Your task to perform on an android device: delete location history Image 0: 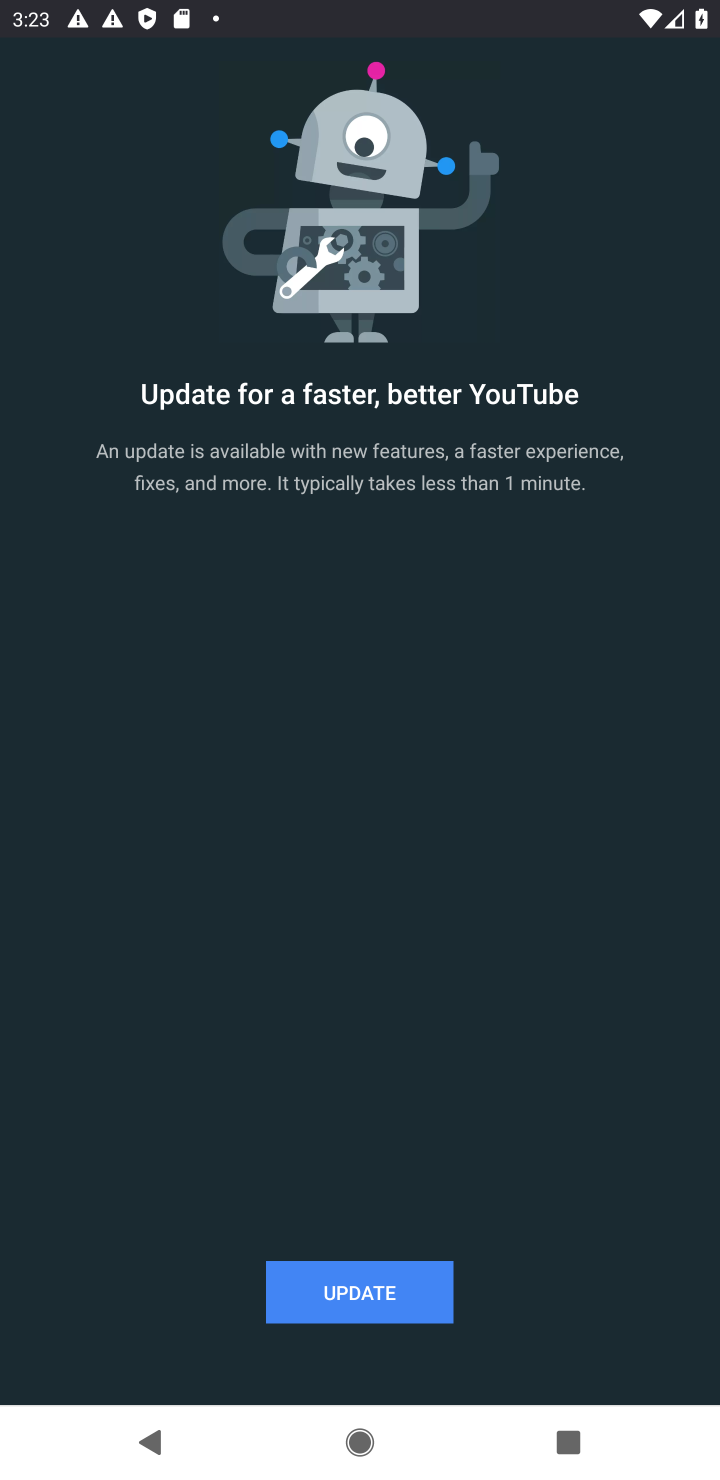
Step 0: press back button
Your task to perform on an android device: delete location history Image 1: 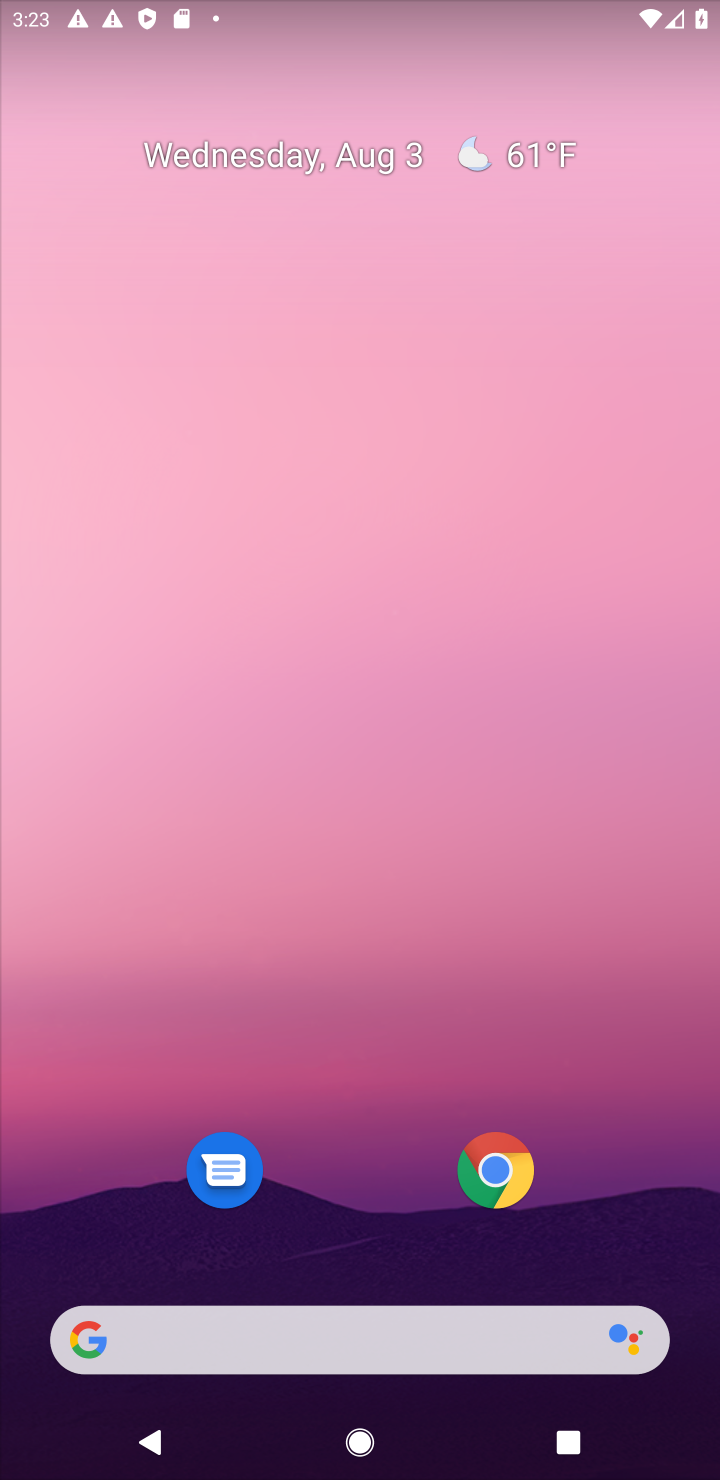
Step 1: drag from (684, 1210) to (472, 230)
Your task to perform on an android device: delete location history Image 2: 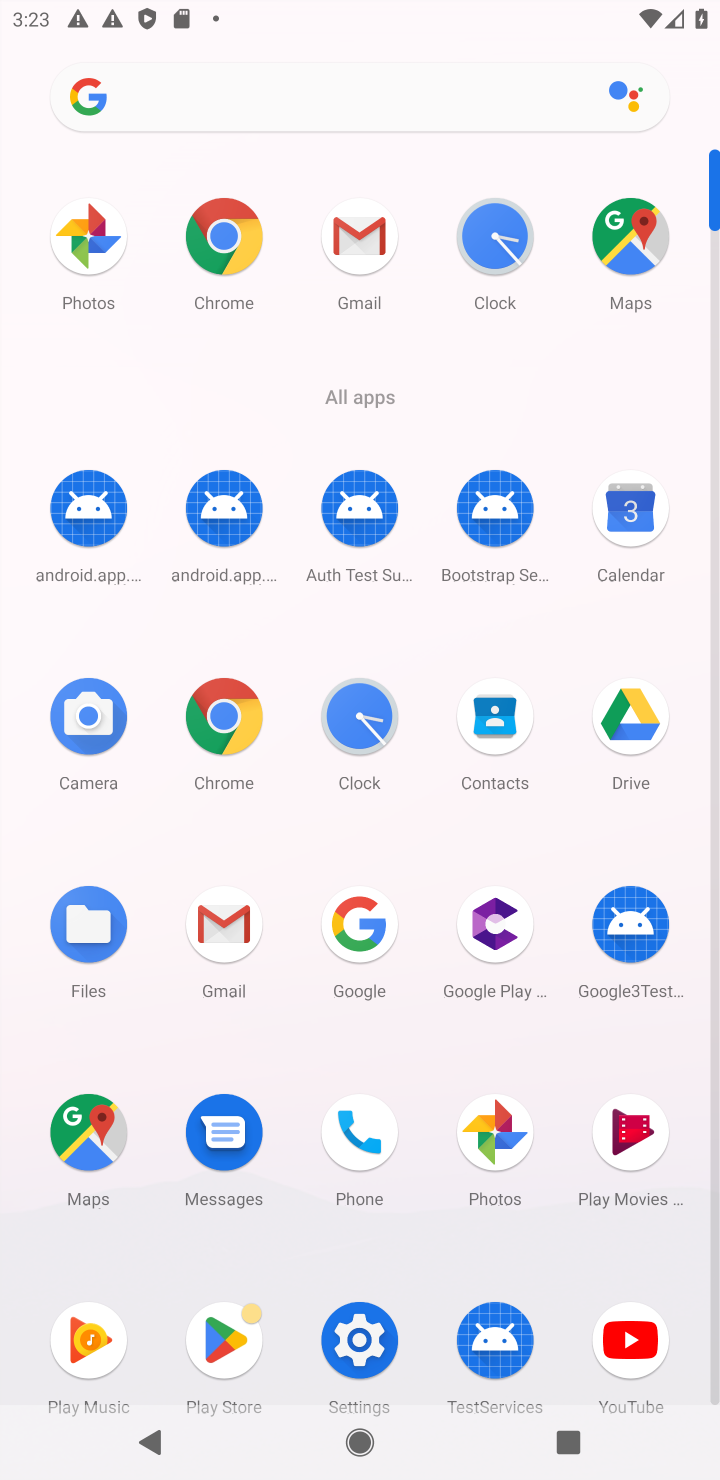
Step 2: click (618, 260)
Your task to perform on an android device: delete location history Image 3: 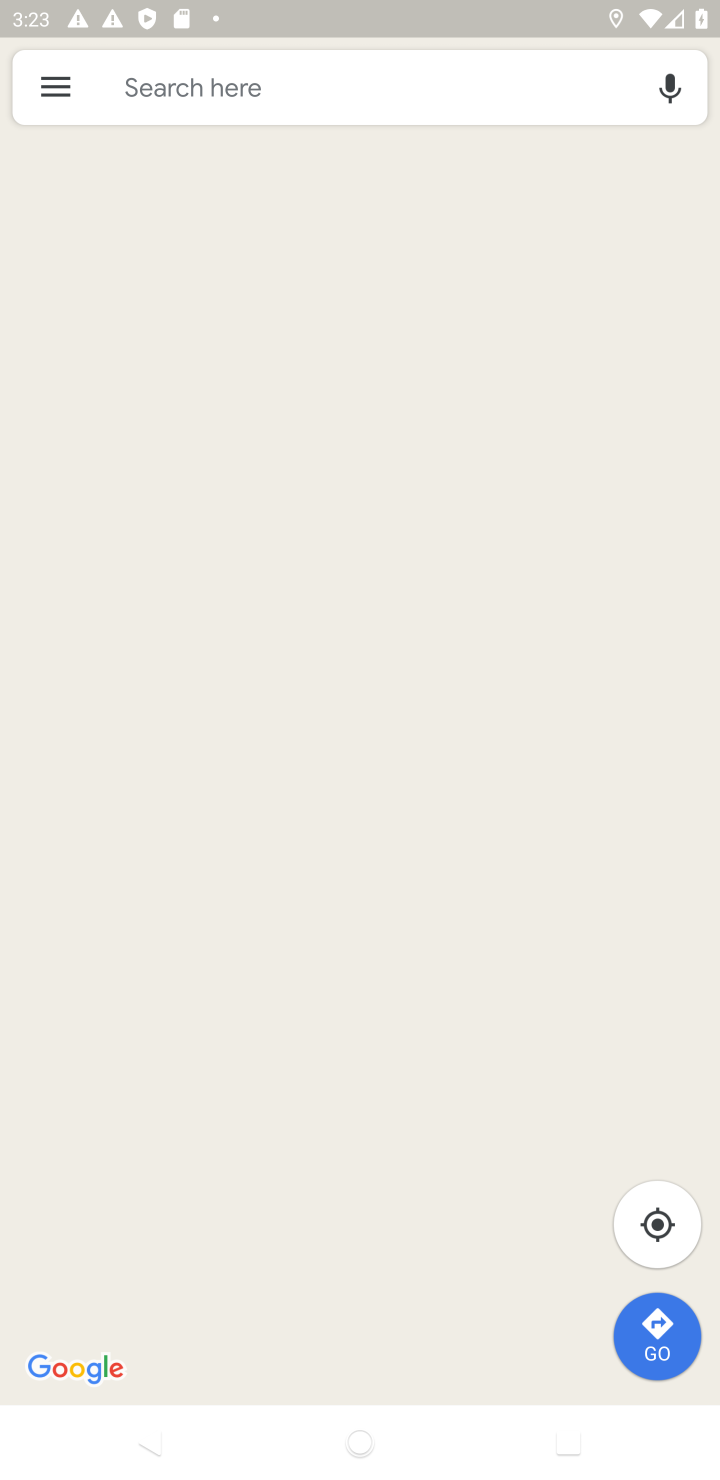
Step 3: click (64, 104)
Your task to perform on an android device: delete location history Image 4: 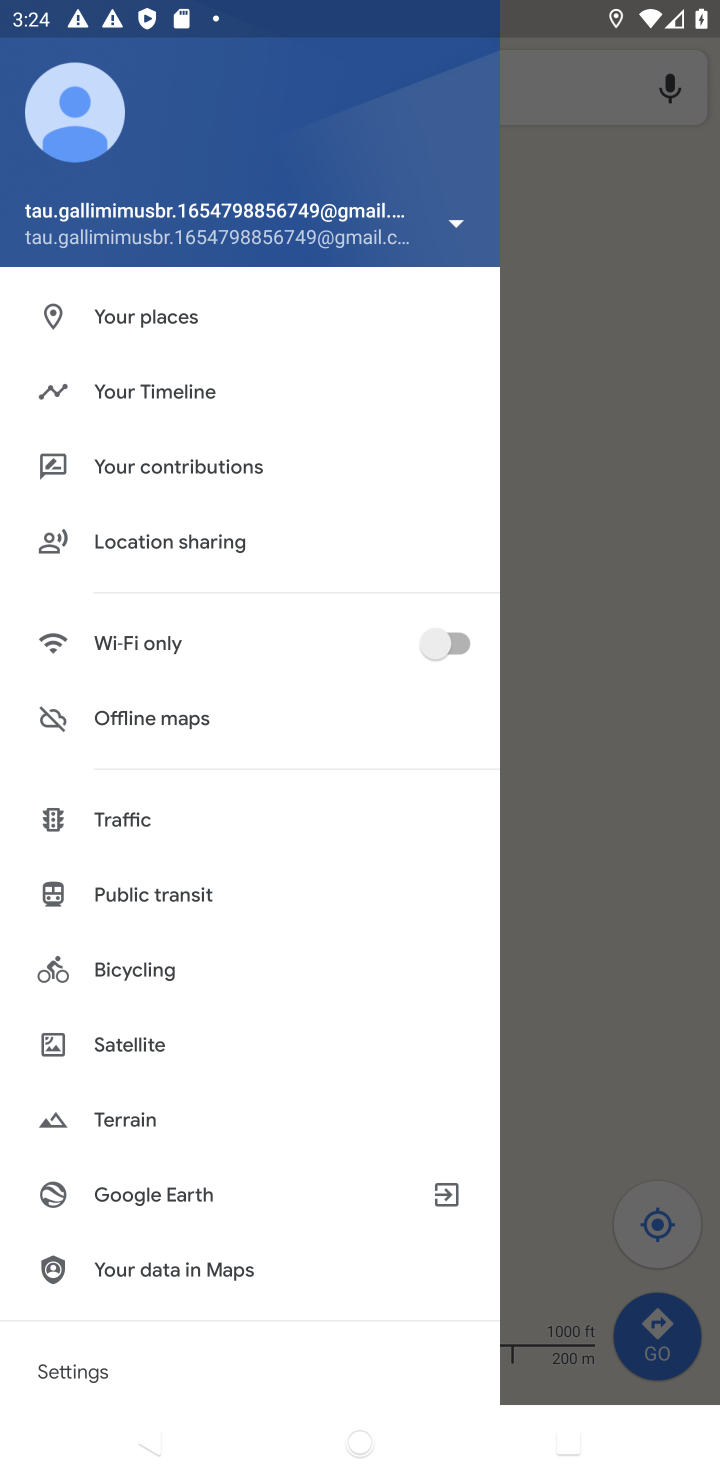
Step 4: click (202, 397)
Your task to perform on an android device: delete location history Image 5: 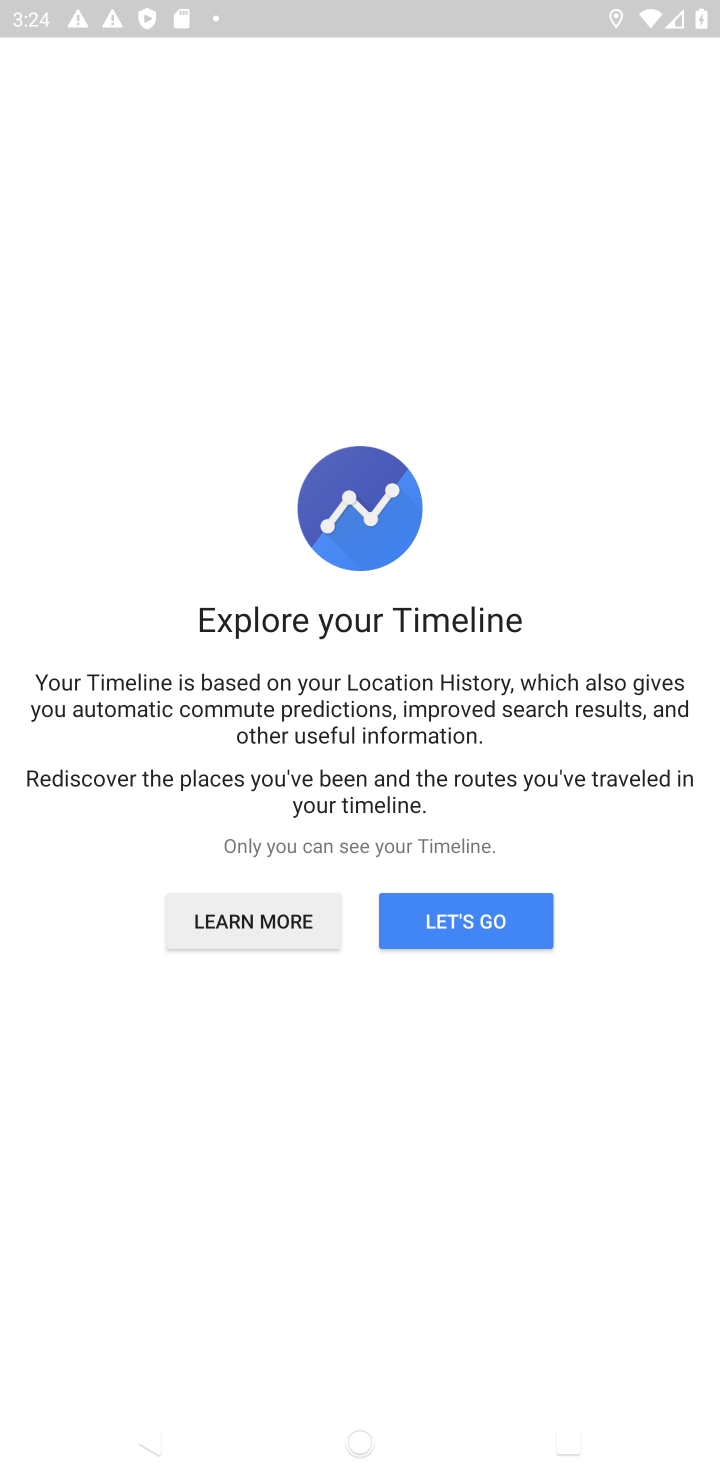
Step 5: click (458, 941)
Your task to perform on an android device: delete location history Image 6: 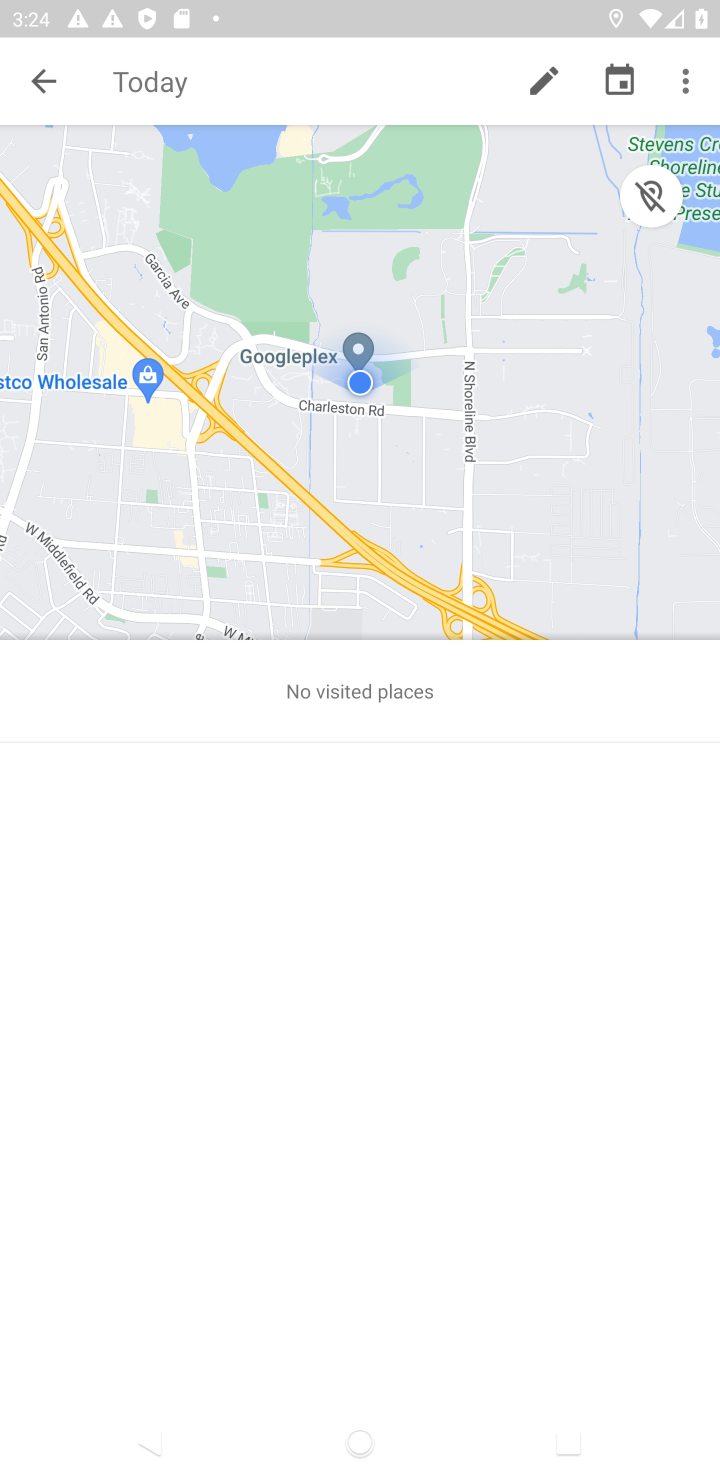
Step 6: click (688, 78)
Your task to perform on an android device: delete location history Image 7: 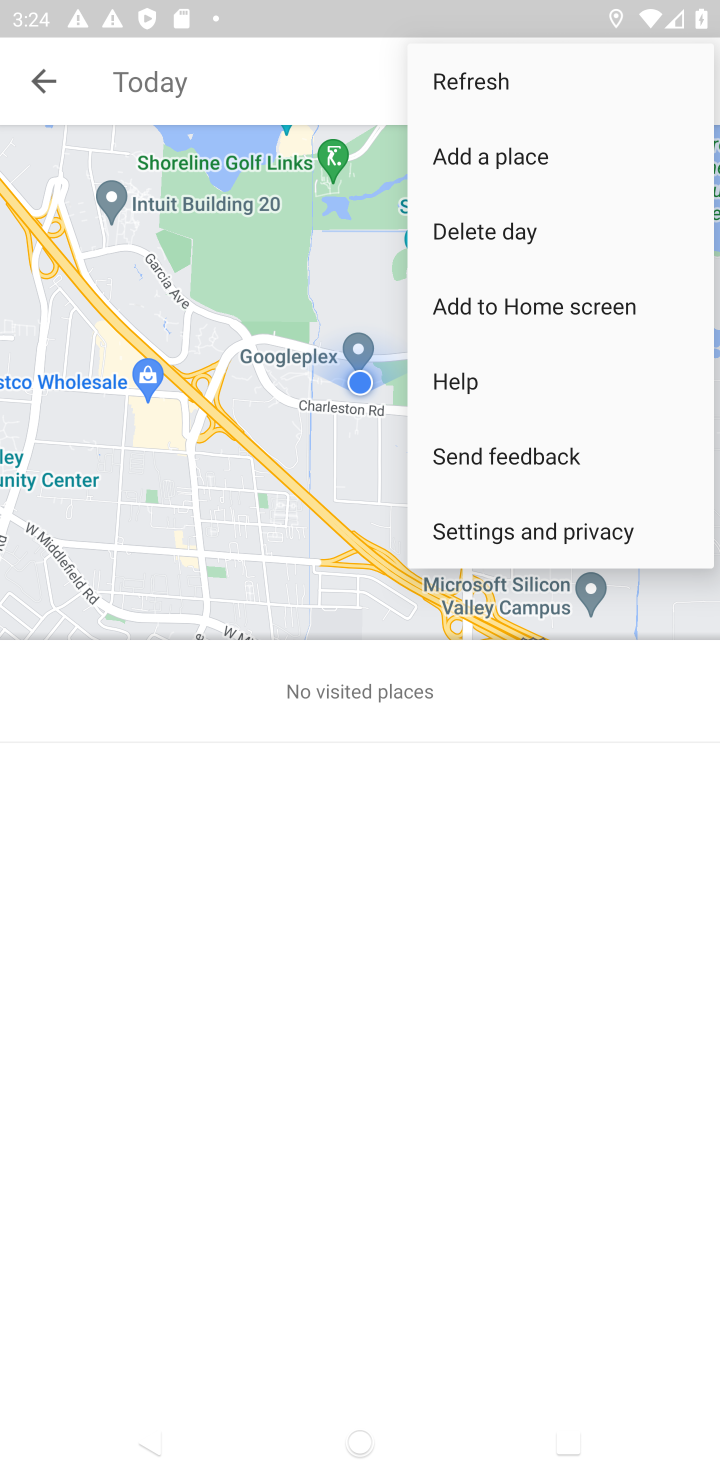
Step 7: click (567, 533)
Your task to perform on an android device: delete location history Image 8: 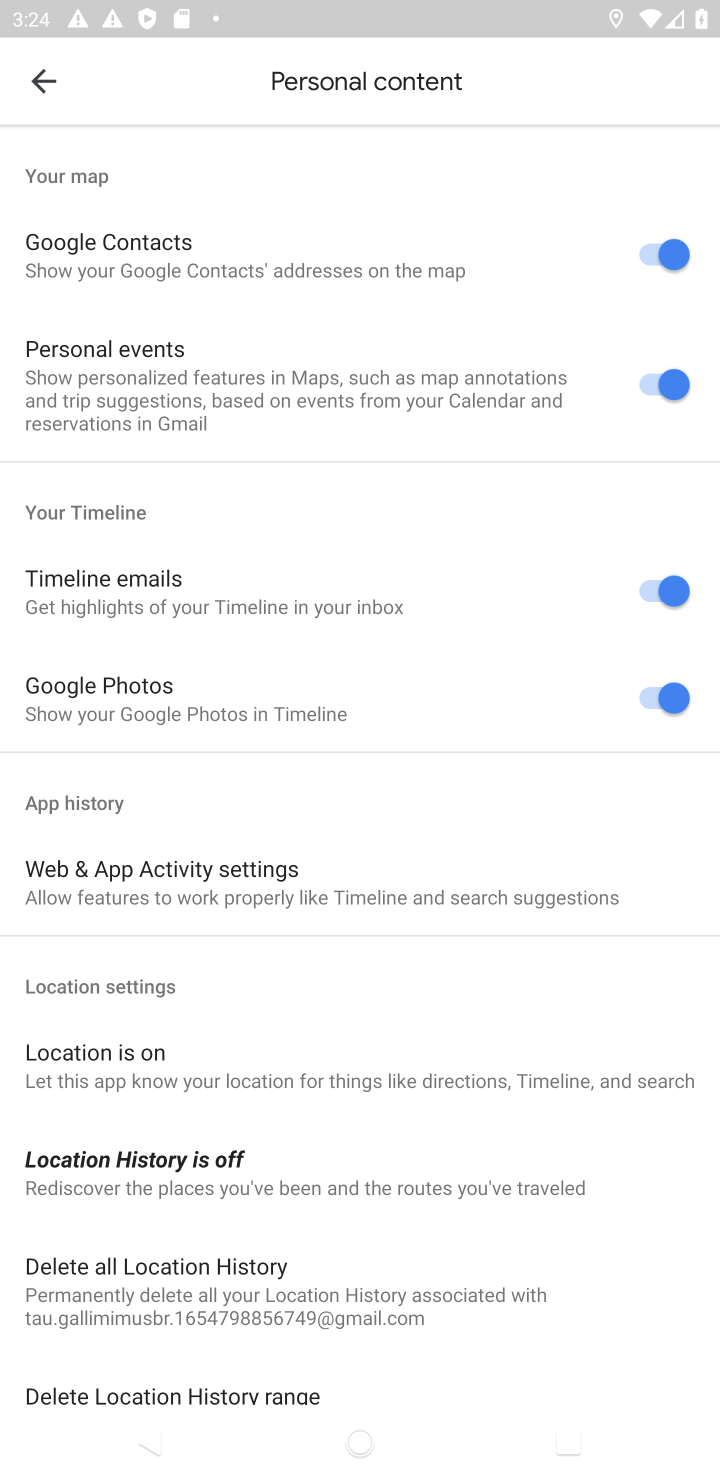
Step 8: click (396, 1295)
Your task to perform on an android device: delete location history Image 9: 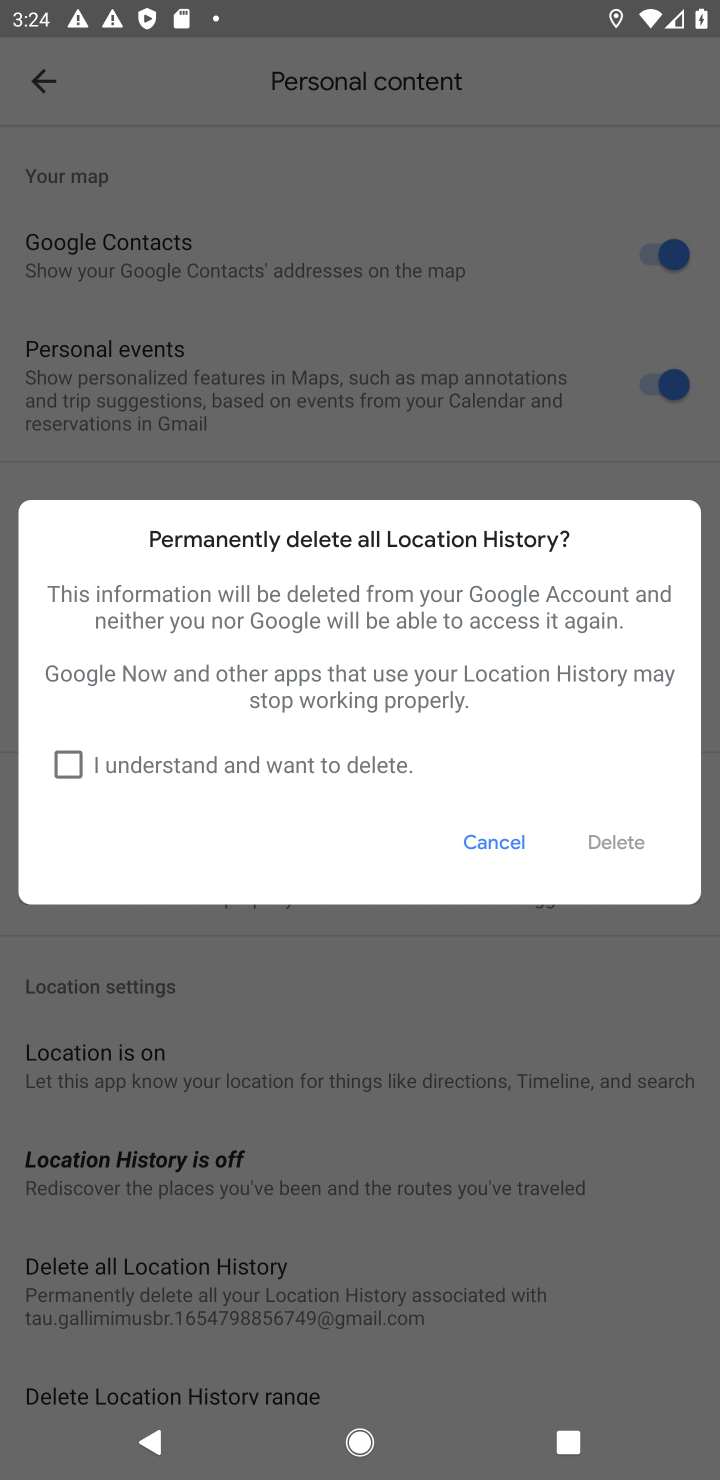
Step 9: click (318, 759)
Your task to perform on an android device: delete location history Image 10: 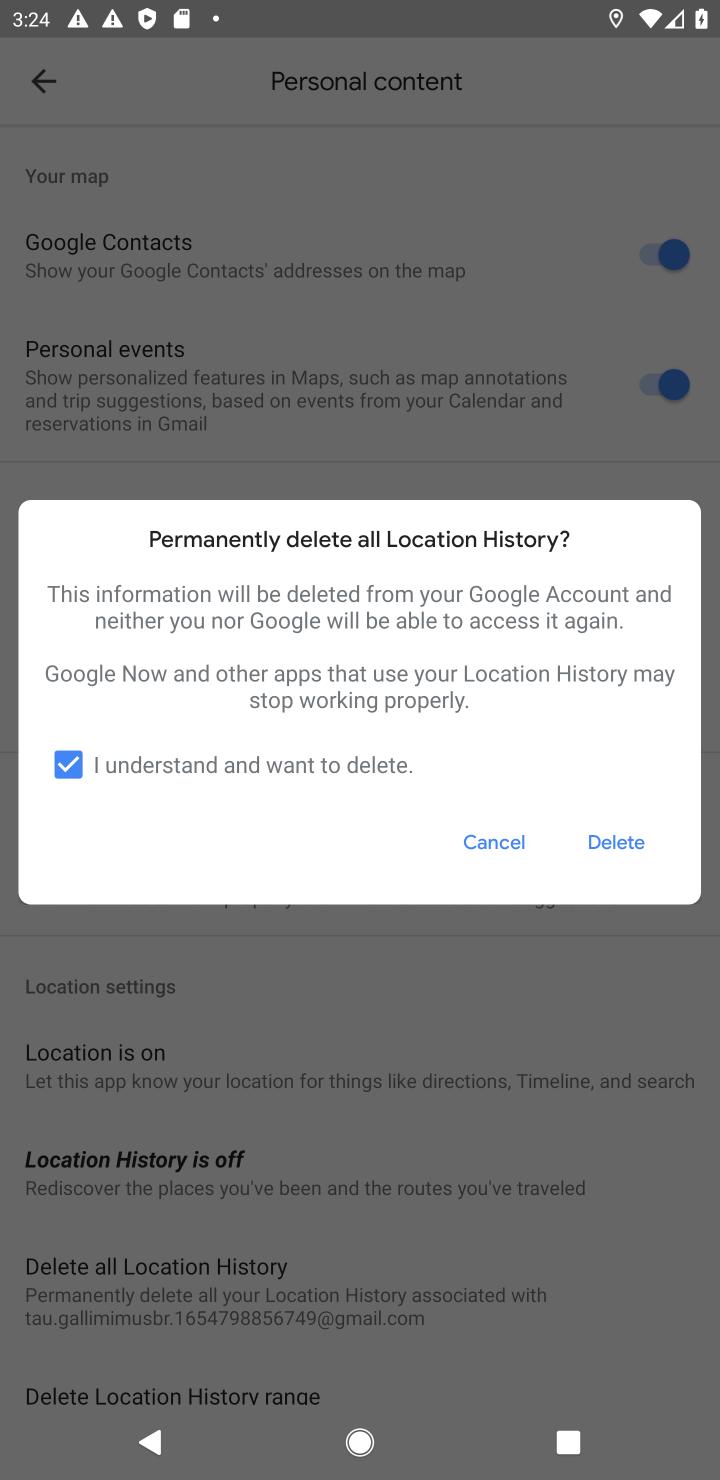
Step 10: click (614, 864)
Your task to perform on an android device: delete location history Image 11: 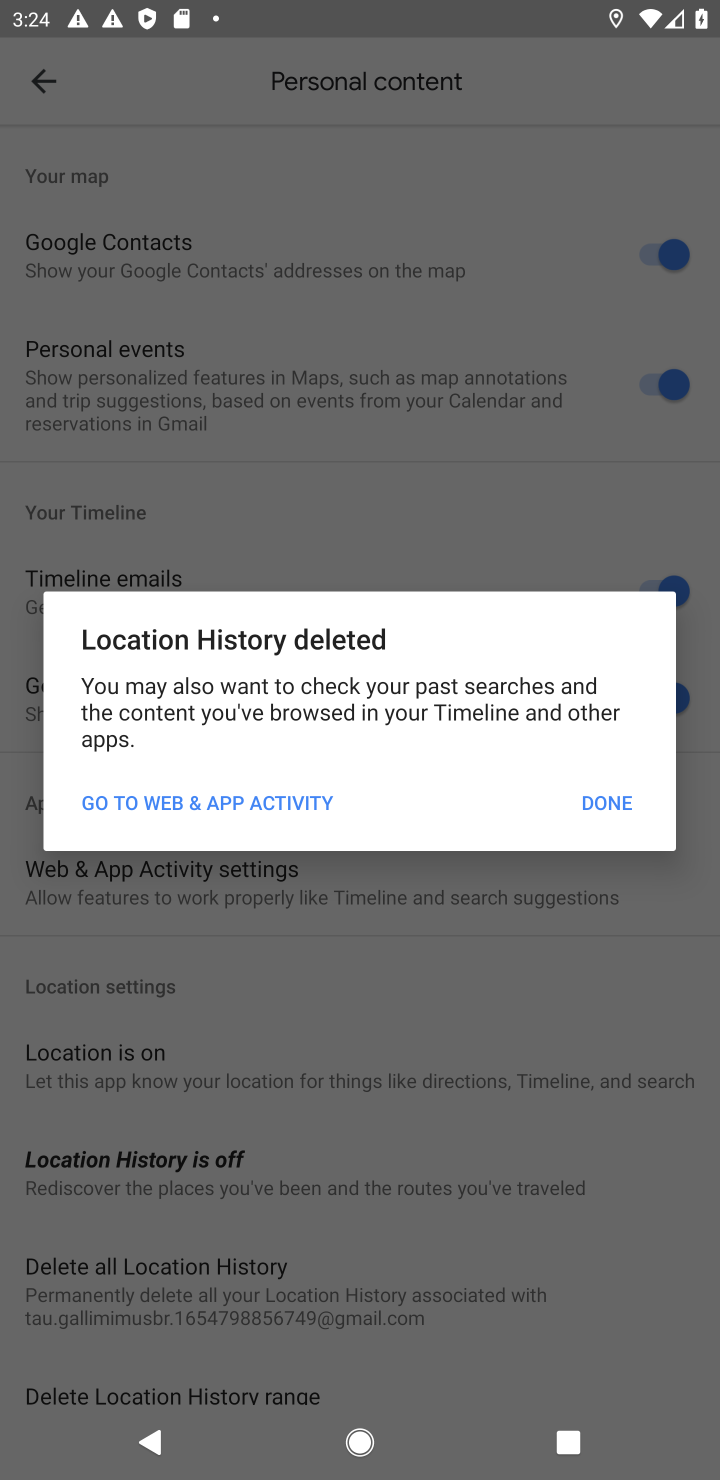
Step 11: click (613, 812)
Your task to perform on an android device: delete location history Image 12: 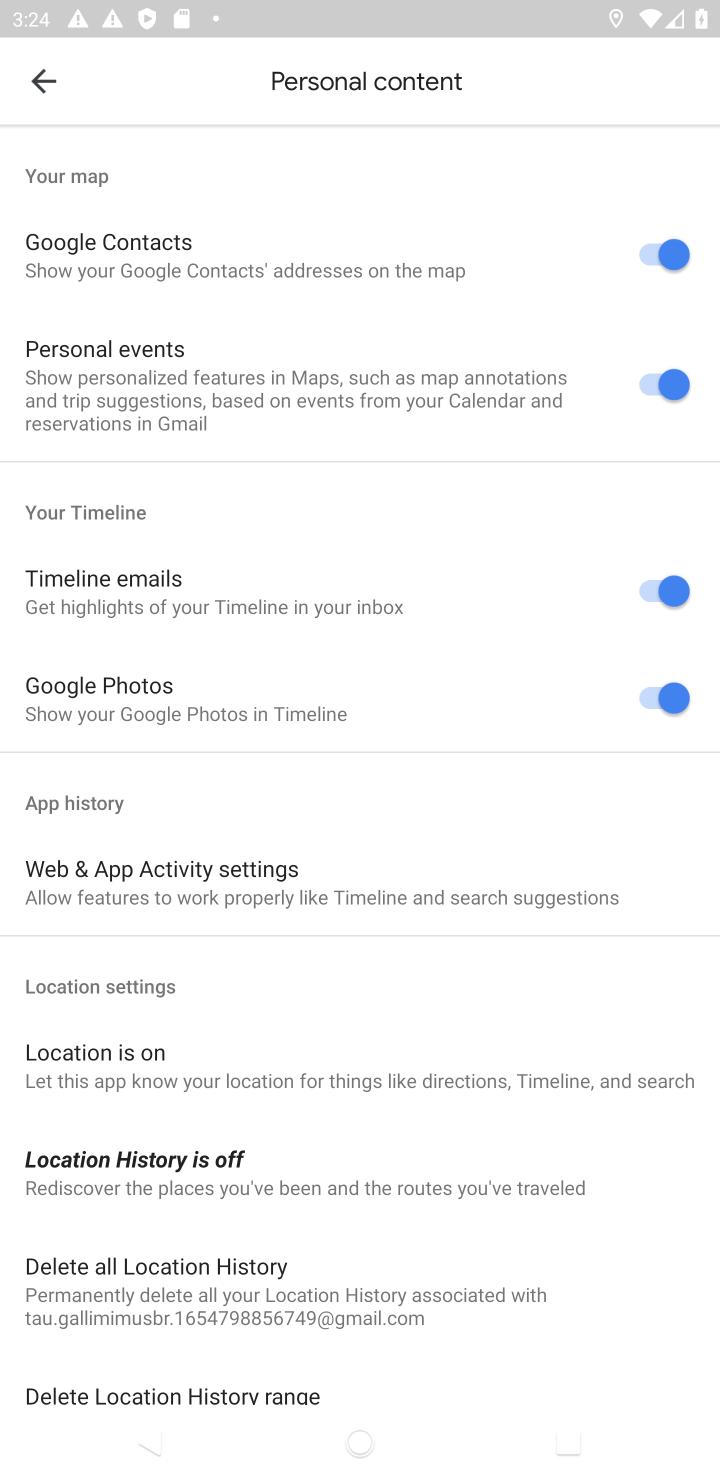
Step 12: task complete